Your task to perform on an android device: turn on airplane mode Image 0: 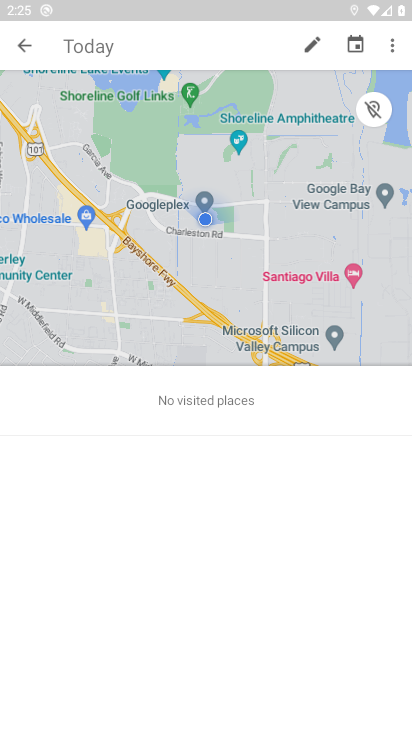
Step 0: press home button
Your task to perform on an android device: turn on airplane mode Image 1: 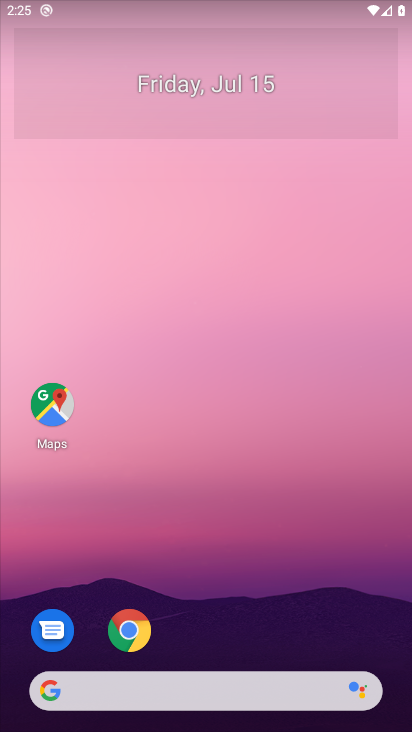
Step 1: drag from (219, 4) to (255, 385)
Your task to perform on an android device: turn on airplane mode Image 2: 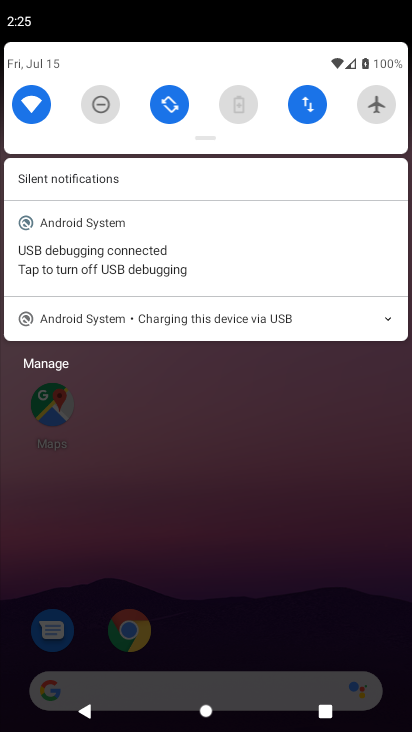
Step 2: click (383, 103)
Your task to perform on an android device: turn on airplane mode Image 3: 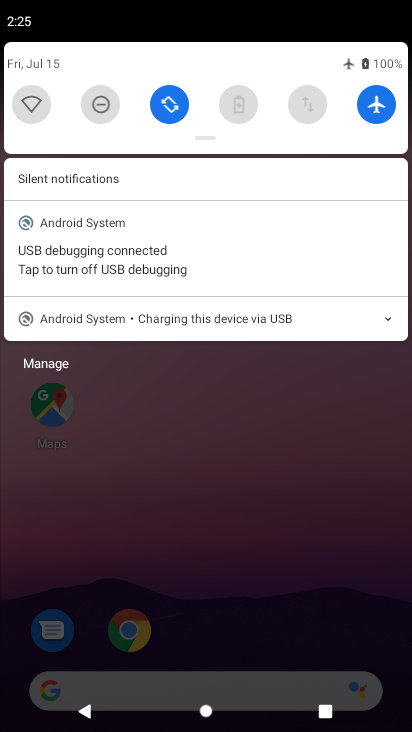
Step 3: task complete